Your task to perform on an android device: open app "LiveIn - Share Your Moment" (install if not already installed), go to login, and select forgot password Image 0: 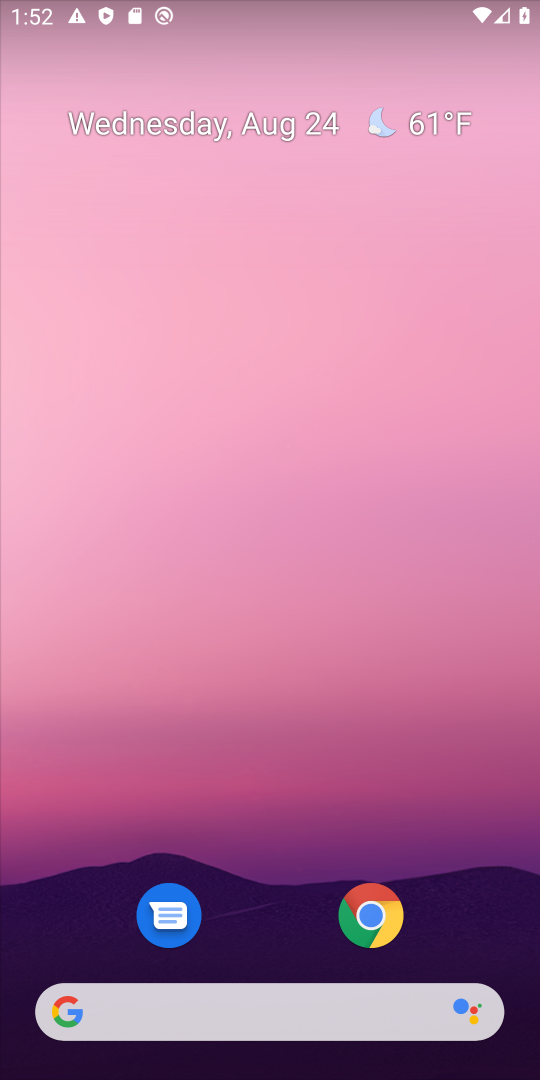
Step 0: drag from (285, 782) to (287, 355)
Your task to perform on an android device: open app "LiveIn - Share Your Moment" (install if not already installed), go to login, and select forgot password Image 1: 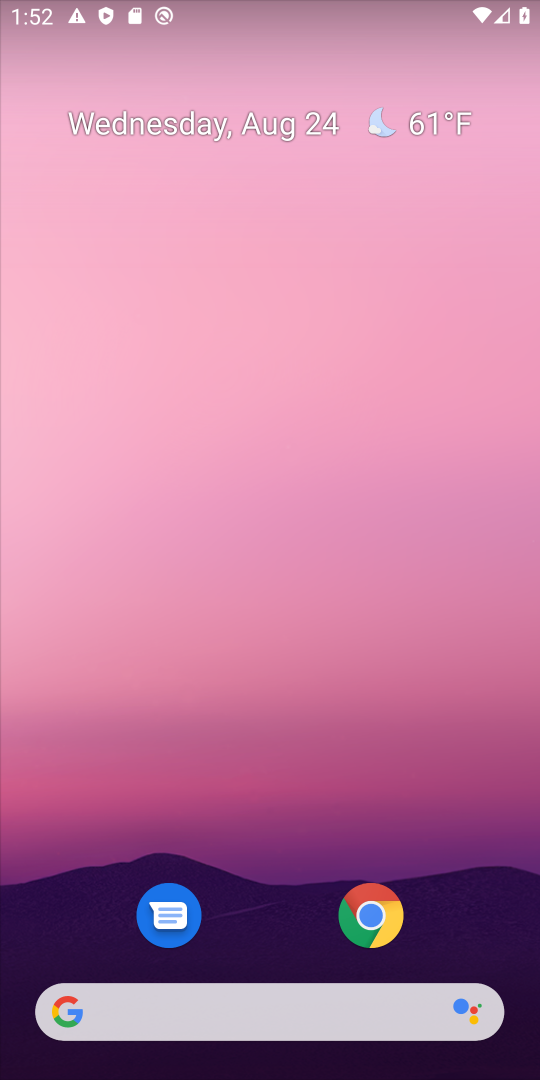
Step 1: drag from (243, 852) to (265, 261)
Your task to perform on an android device: open app "LiveIn - Share Your Moment" (install if not already installed), go to login, and select forgot password Image 2: 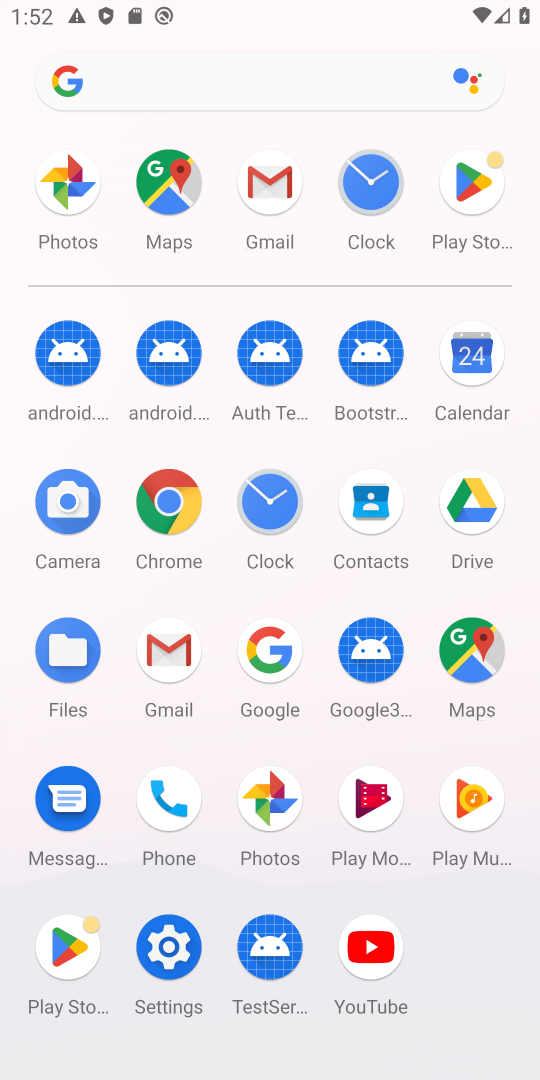
Step 2: click (476, 190)
Your task to perform on an android device: open app "LiveIn - Share Your Moment" (install if not already installed), go to login, and select forgot password Image 3: 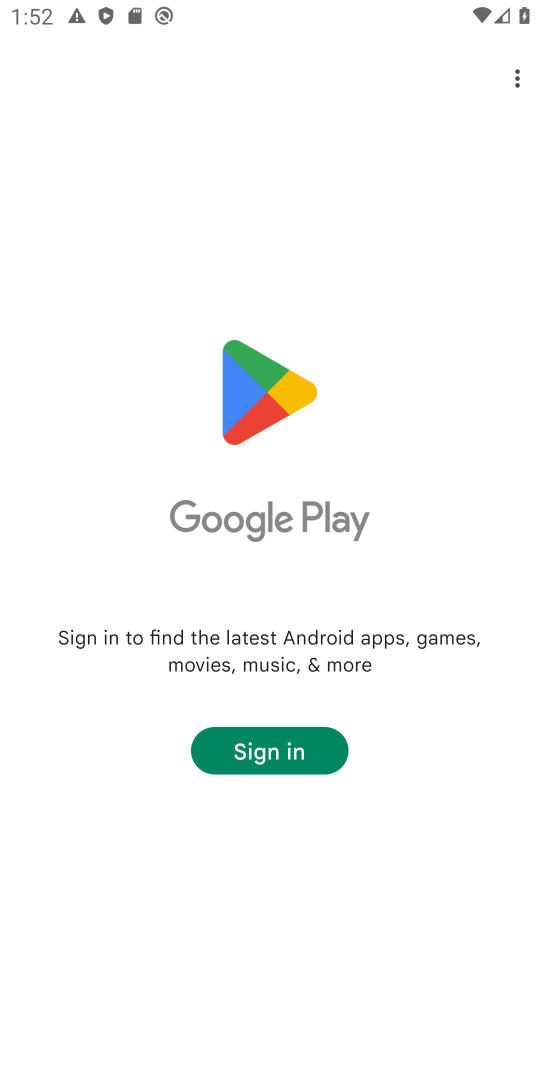
Step 3: task complete